Your task to perform on an android device: open a bookmark in the chrome app Image 0: 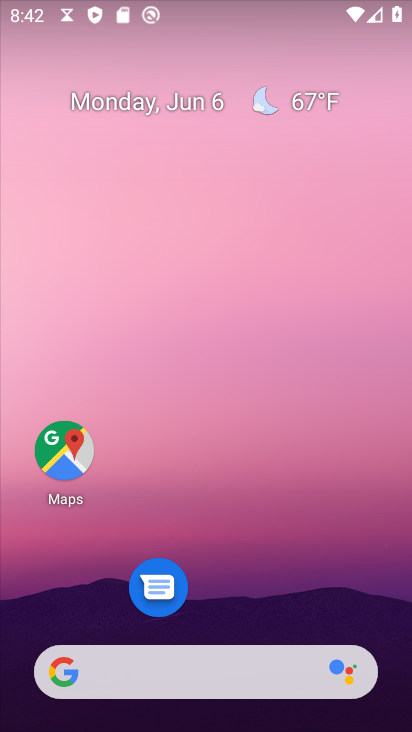
Step 0: drag from (219, 604) to (270, 225)
Your task to perform on an android device: open a bookmark in the chrome app Image 1: 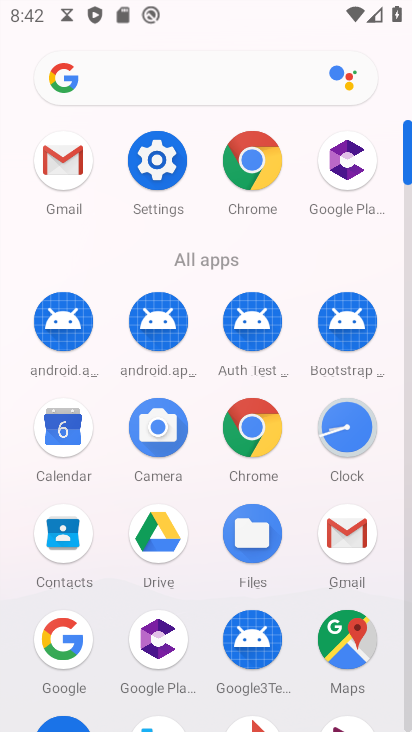
Step 1: click (251, 438)
Your task to perform on an android device: open a bookmark in the chrome app Image 2: 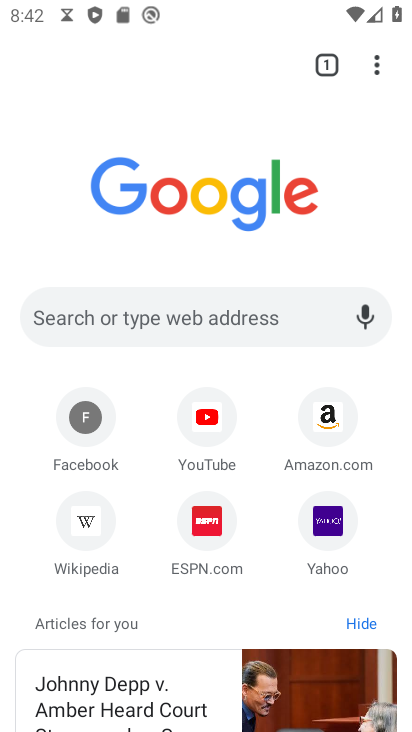
Step 2: click (373, 67)
Your task to perform on an android device: open a bookmark in the chrome app Image 3: 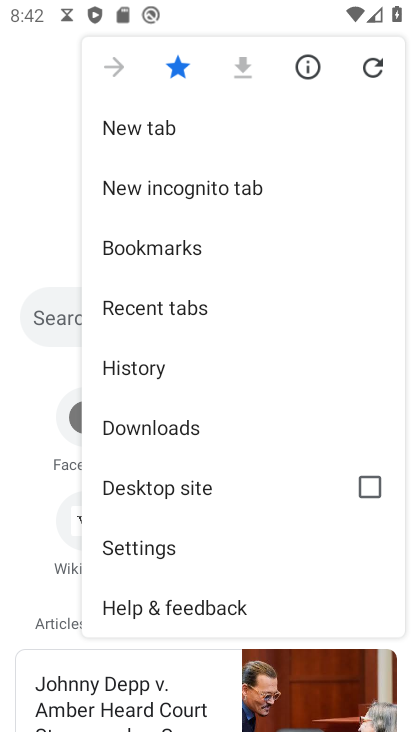
Step 3: click (176, 246)
Your task to perform on an android device: open a bookmark in the chrome app Image 4: 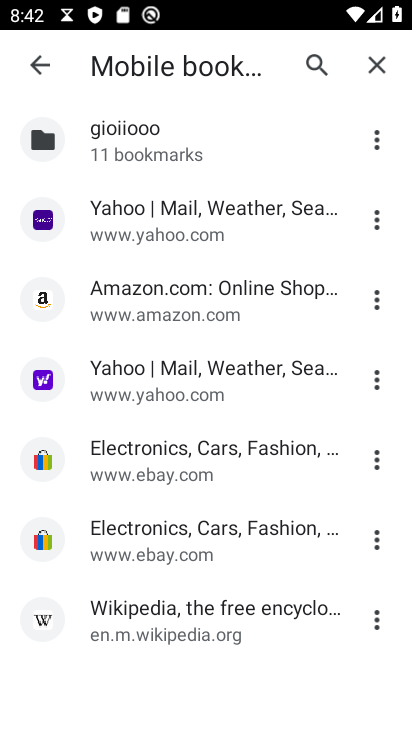
Step 4: click (179, 310)
Your task to perform on an android device: open a bookmark in the chrome app Image 5: 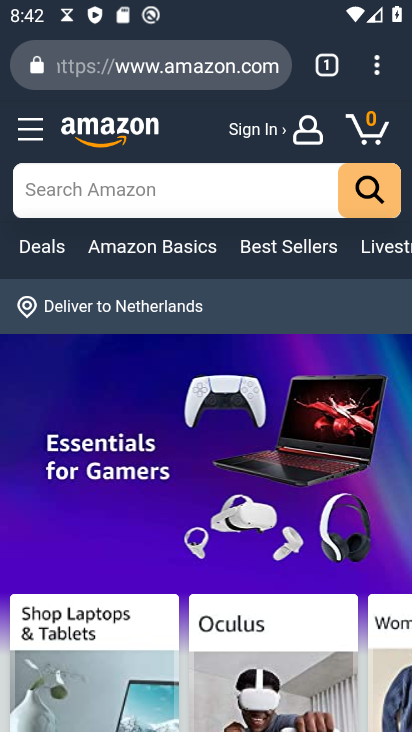
Step 5: task complete